Your task to perform on an android device: Open Android settings Image 0: 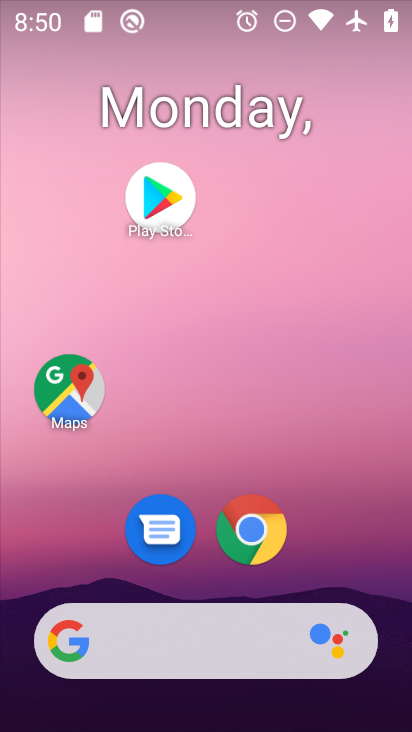
Step 0: drag from (314, 478) to (227, 158)
Your task to perform on an android device: Open Android settings Image 1: 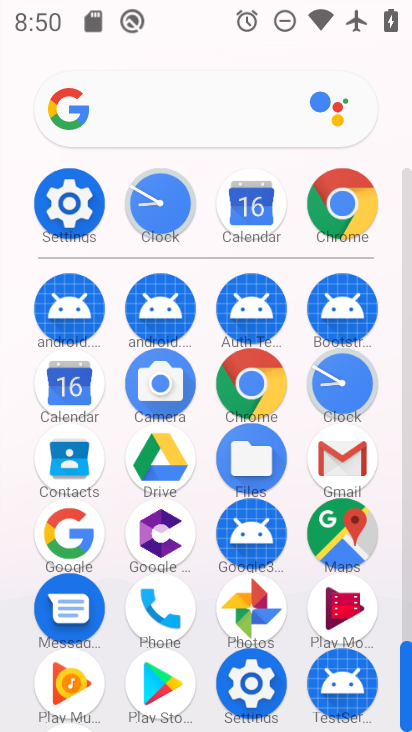
Step 1: click (63, 205)
Your task to perform on an android device: Open Android settings Image 2: 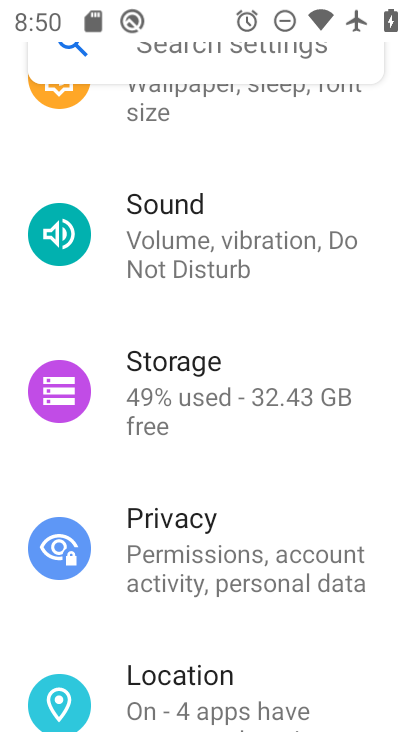
Step 2: task complete